Your task to perform on an android device: add a label to a message in the gmail app Image 0: 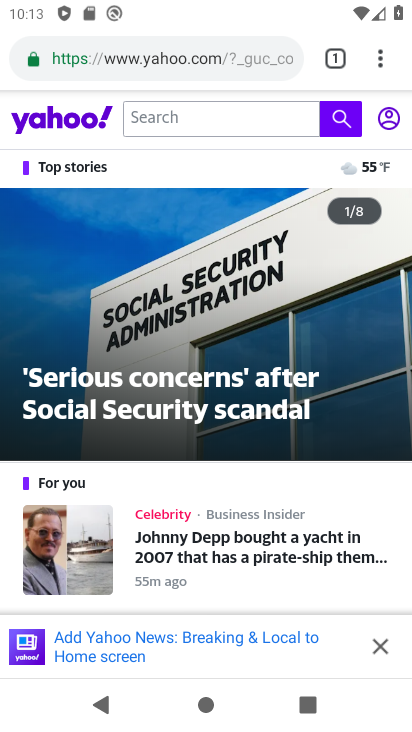
Step 0: press home button
Your task to perform on an android device: add a label to a message in the gmail app Image 1: 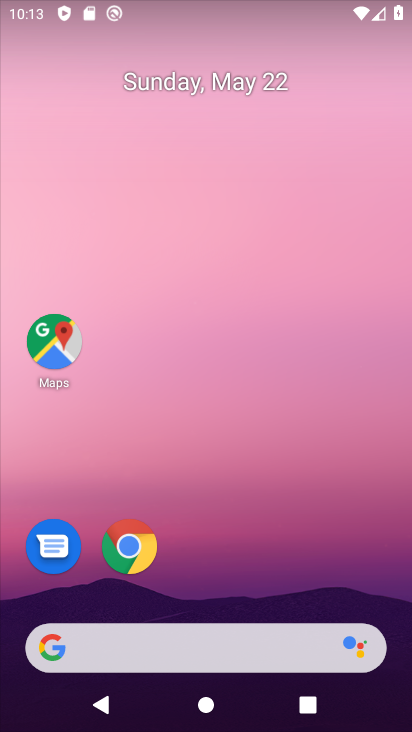
Step 1: drag from (206, 615) to (301, 119)
Your task to perform on an android device: add a label to a message in the gmail app Image 2: 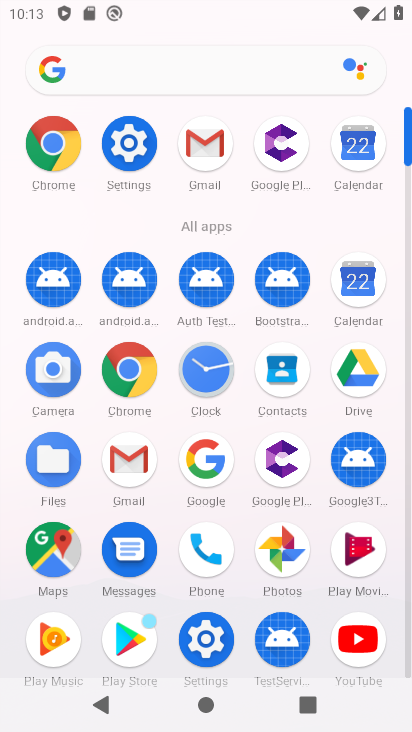
Step 2: click (134, 468)
Your task to perform on an android device: add a label to a message in the gmail app Image 3: 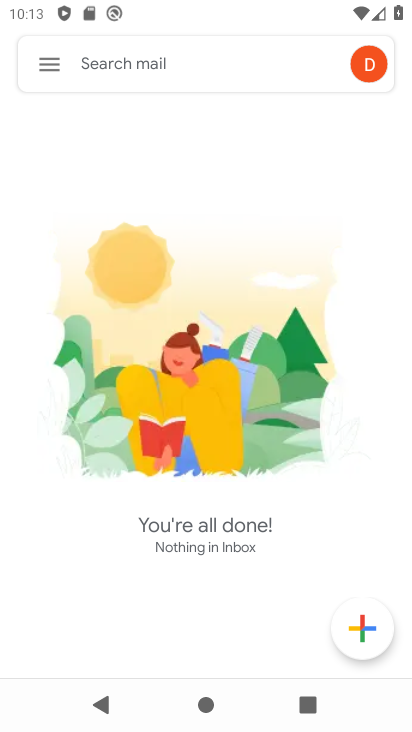
Step 3: click (49, 70)
Your task to perform on an android device: add a label to a message in the gmail app Image 4: 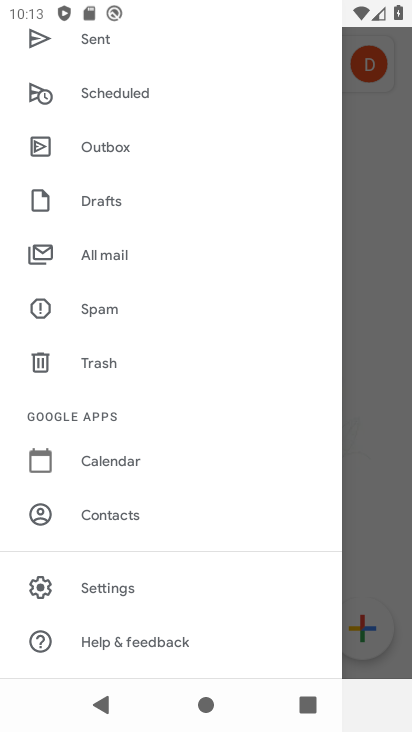
Step 4: click (96, 259)
Your task to perform on an android device: add a label to a message in the gmail app Image 5: 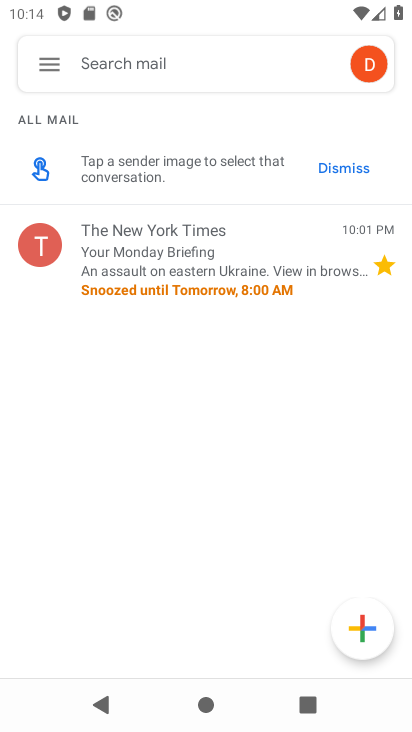
Step 5: click (38, 243)
Your task to perform on an android device: add a label to a message in the gmail app Image 6: 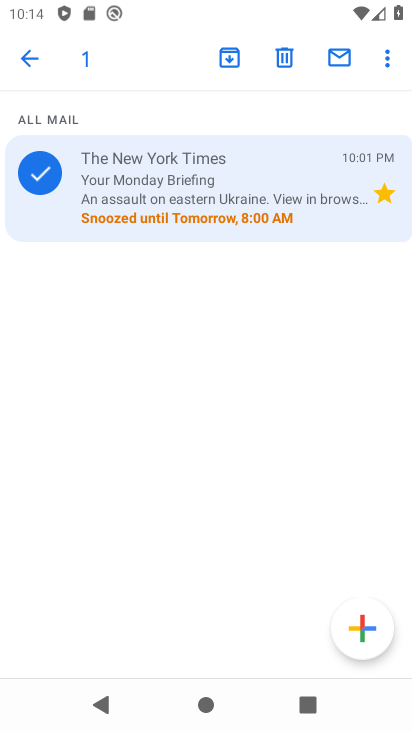
Step 6: click (380, 53)
Your task to perform on an android device: add a label to a message in the gmail app Image 7: 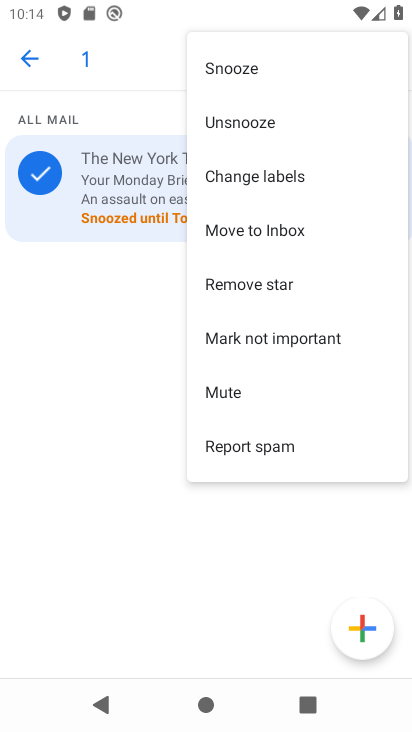
Step 7: click (246, 175)
Your task to perform on an android device: add a label to a message in the gmail app Image 8: 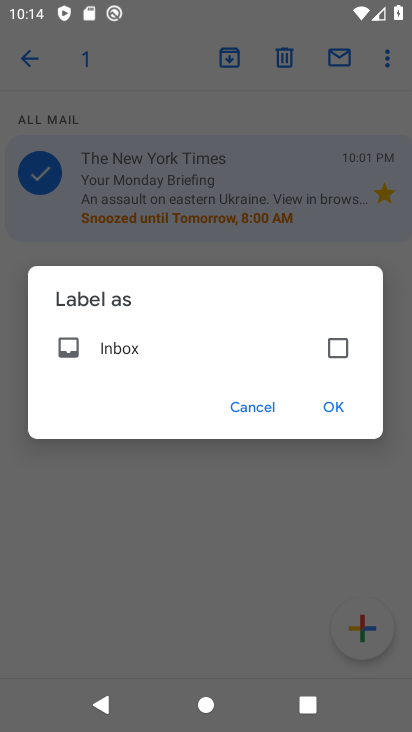
Step 8: click (335, 345)
Your task to perform on an android device: add a label to a message in the gmail app Image 9: 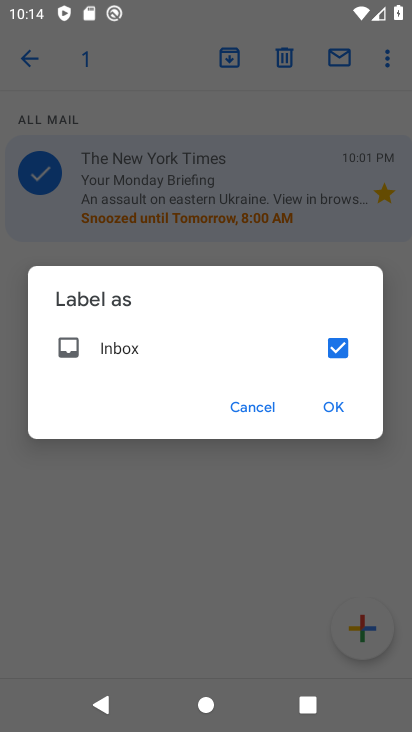
Step 9: click (331, 405)
Your task to perform on an android device: add a label to a message in the gmail app Image 10: 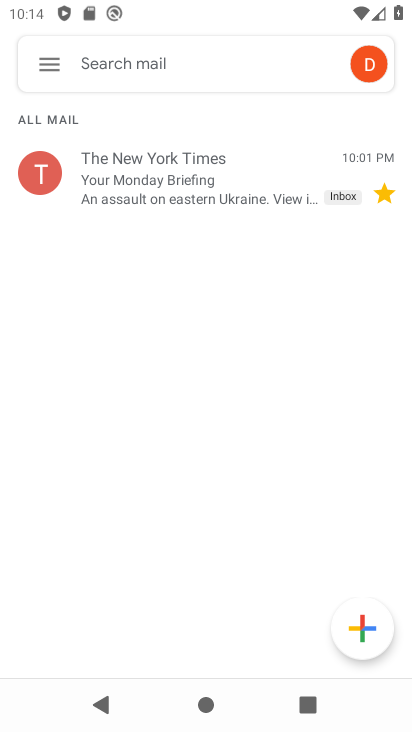
Step 10: task complete